Your task to perform on an android device: Open Wikipedia Image 0: 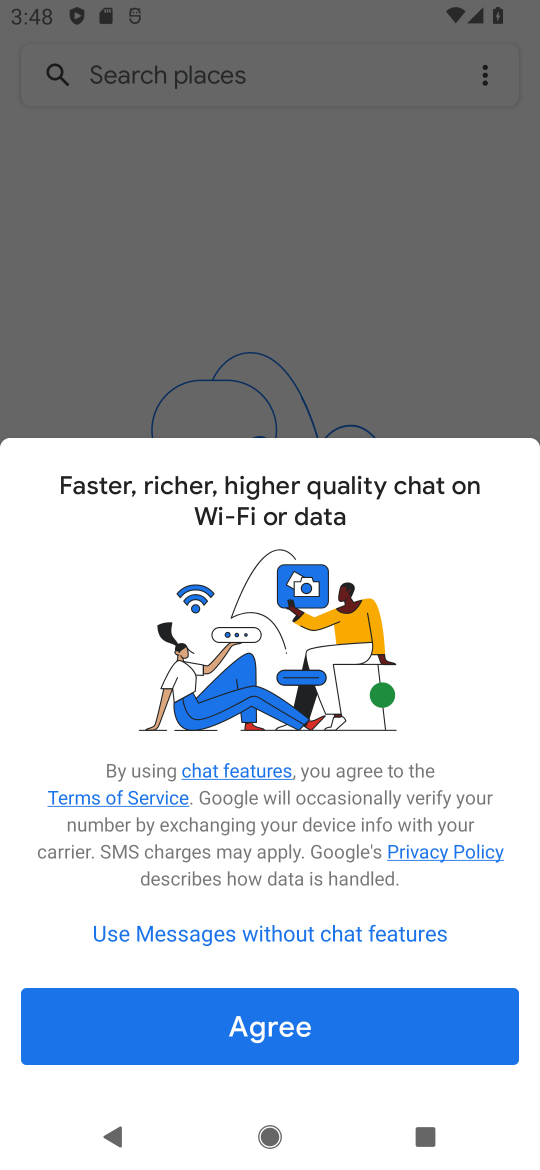
Step 0: press home button
Your task to perform on an android device: Open Wikipedia Image 1: 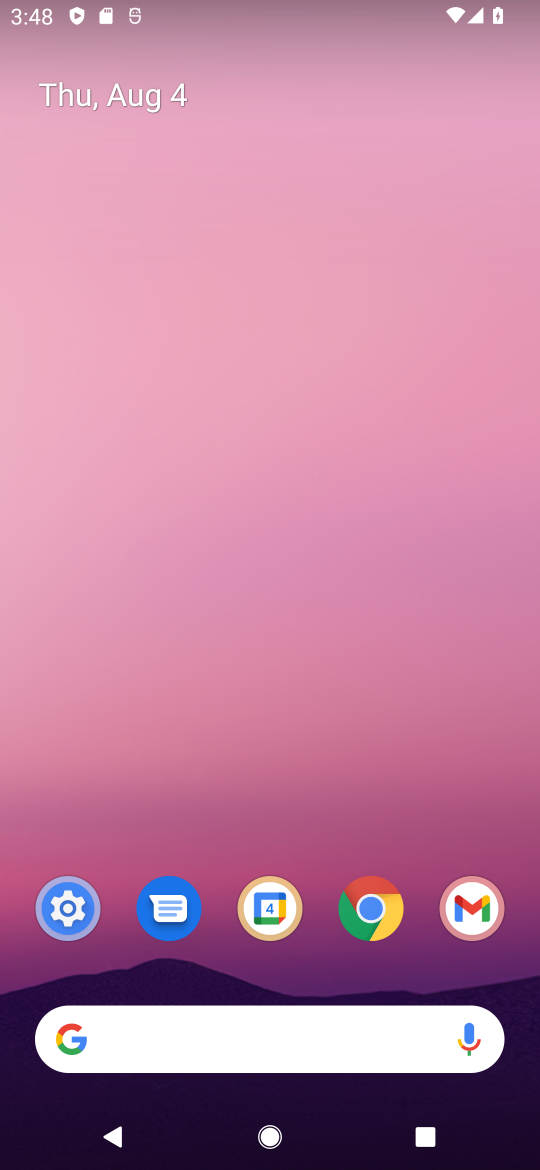
Step 1: click (372, 934)
Your task to perform on an android device: Open Wikipedia Image 2: 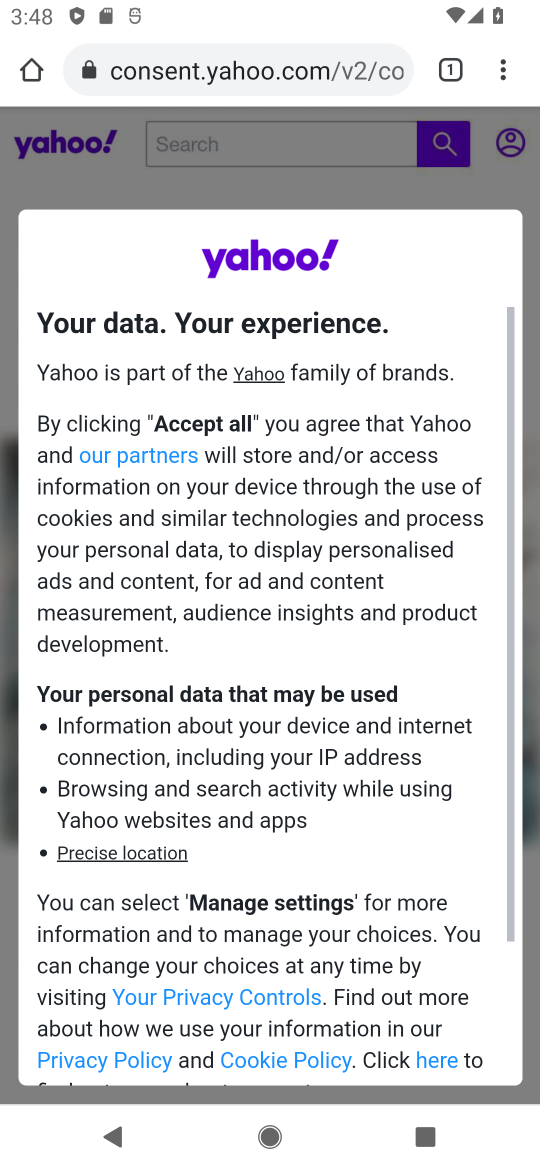
Step 2: click (273, 80)
Your task to perform on an android device: Open Wikipedia Image 3: 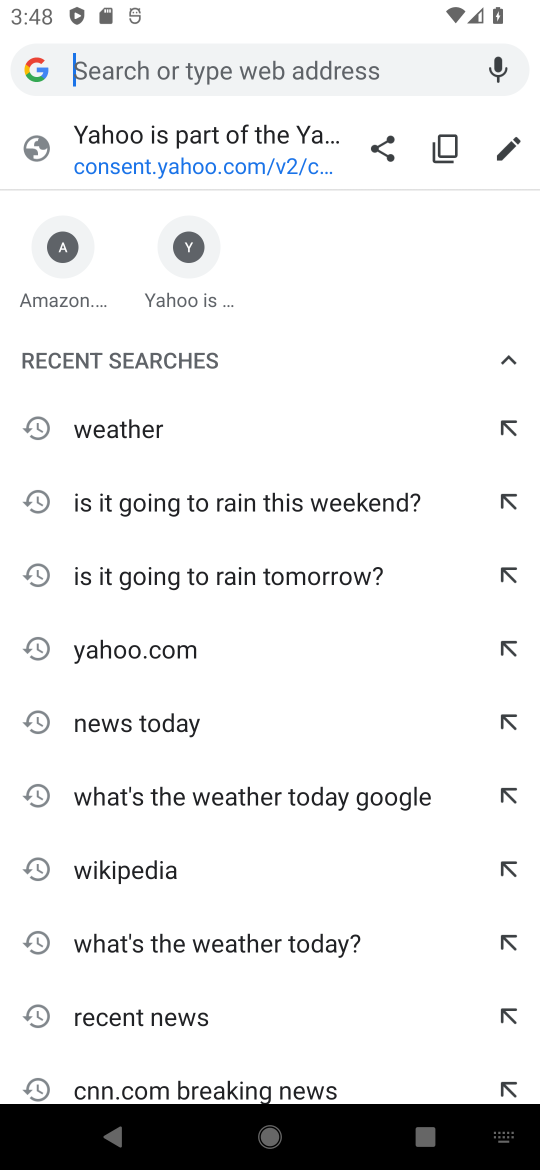
Step 3: type "wikipedia"
Your task to perform on an android device: Open Wikipedia Image 4: 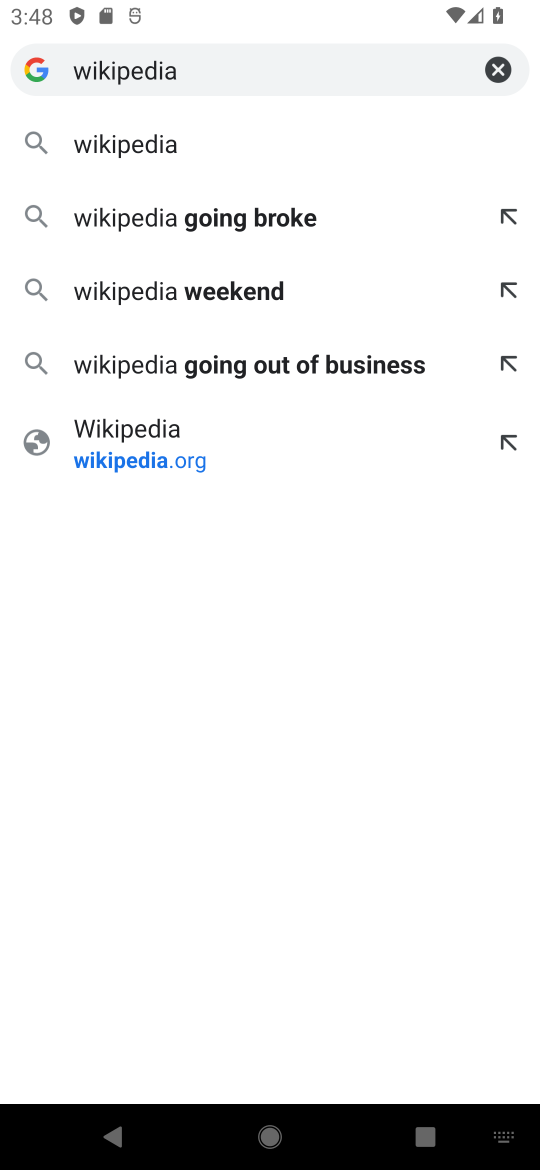
Step 4: click (306, 145)
Your task to perform on an android device: Open Wikipedia Image 5: 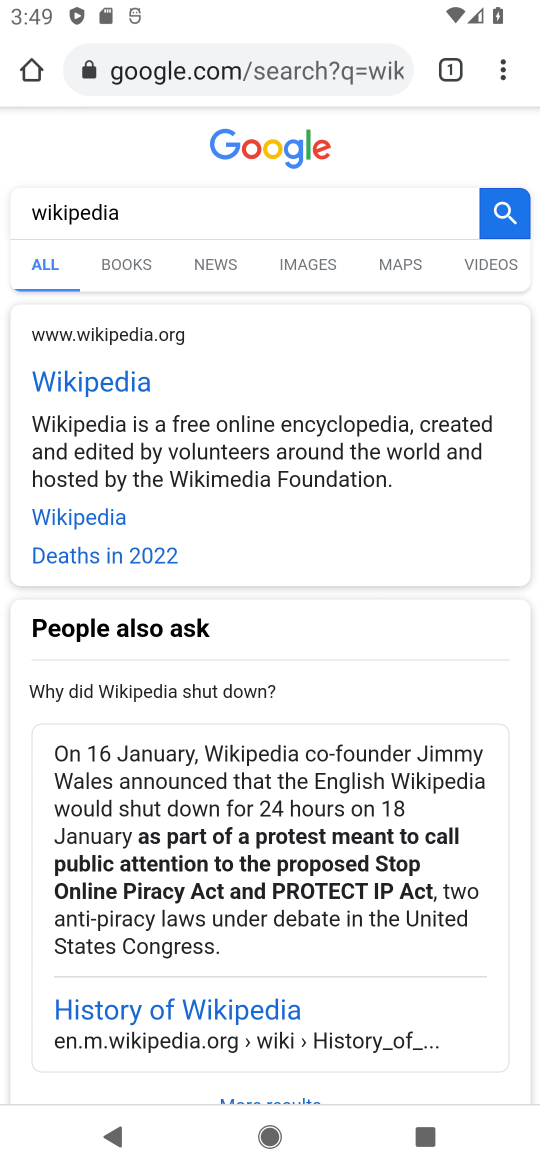
Step 5: click (79, 378)
Your task to perform on an android device: Open Wikipedia Image 6: 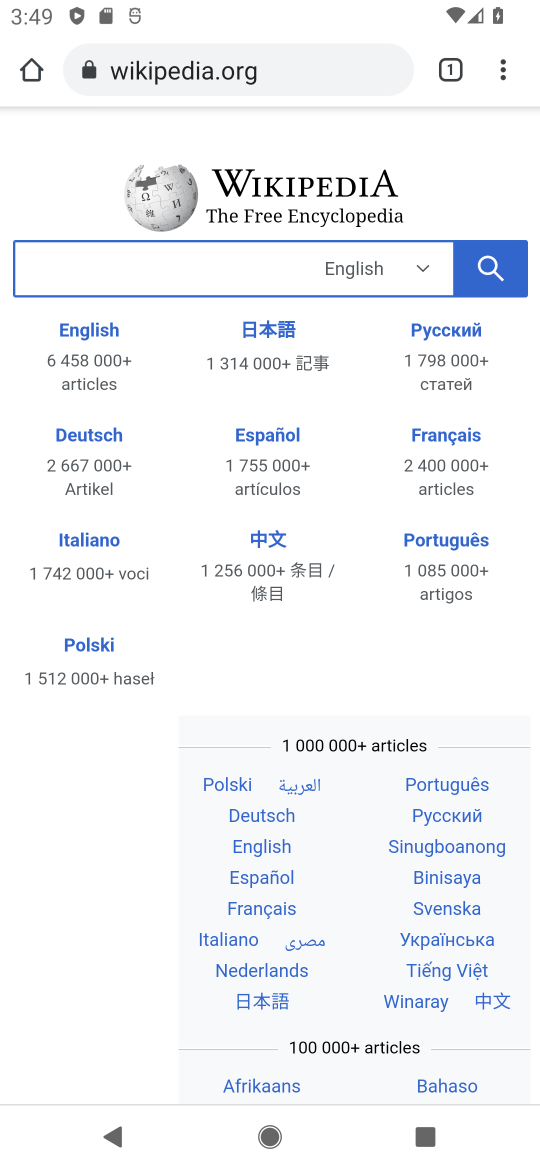
Step 6: task complete